Your task to perform on an android device: find which apps use the phone's location Image 0: 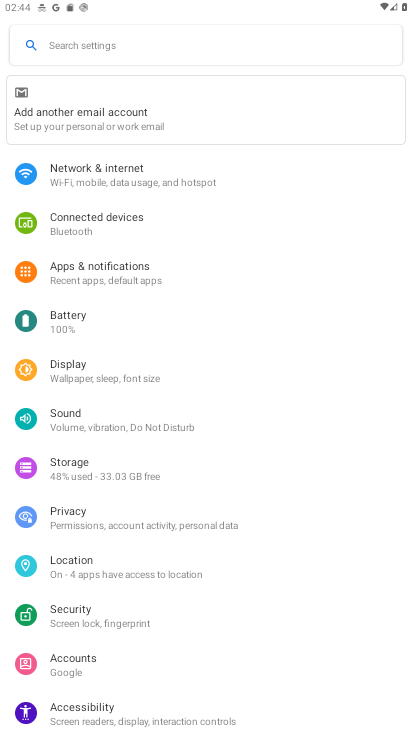
Step 0: click (98, 566)
Your task to perform on an android device: find which apps use the phone's location Image 1: 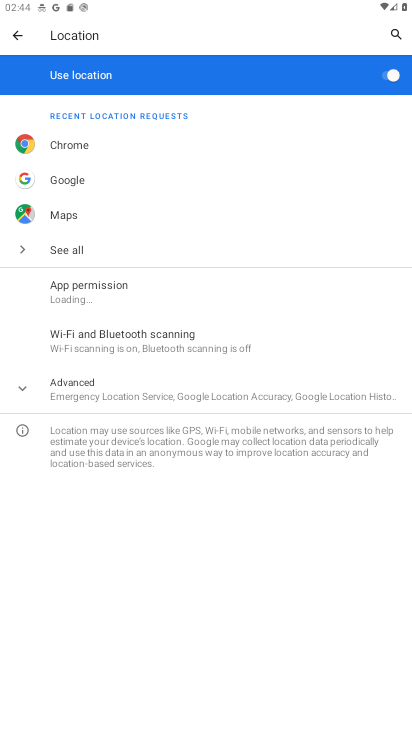
Step 1: click (101, 289)
Your task to perform on an android device: find which apps use the phone's location Image 2: 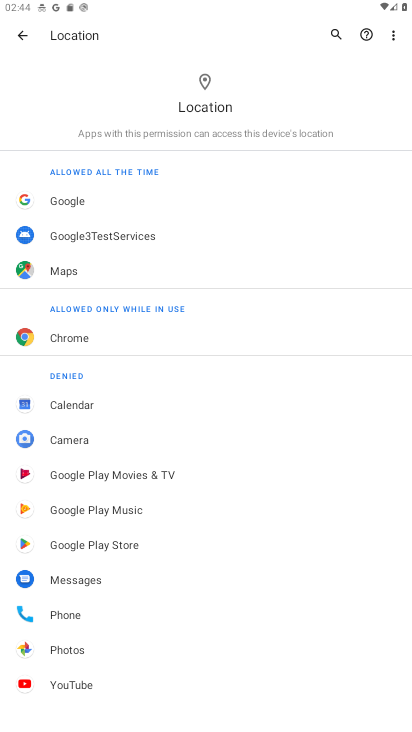
Step 2: task complete